Your task to perform on an android device: open app "Flipkart Online Shopping App" (install if not already installed) Image 0: 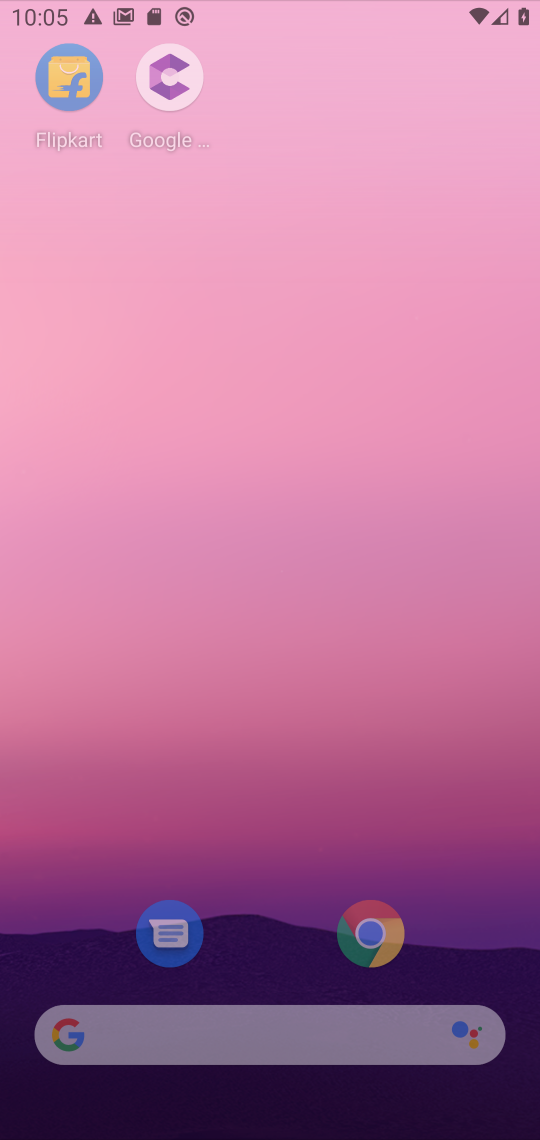
Step 0: click (478, 385)
Your task to perform on an android device: open app "Flipkart Online Shopping App" (install if not already installed) Image 1: 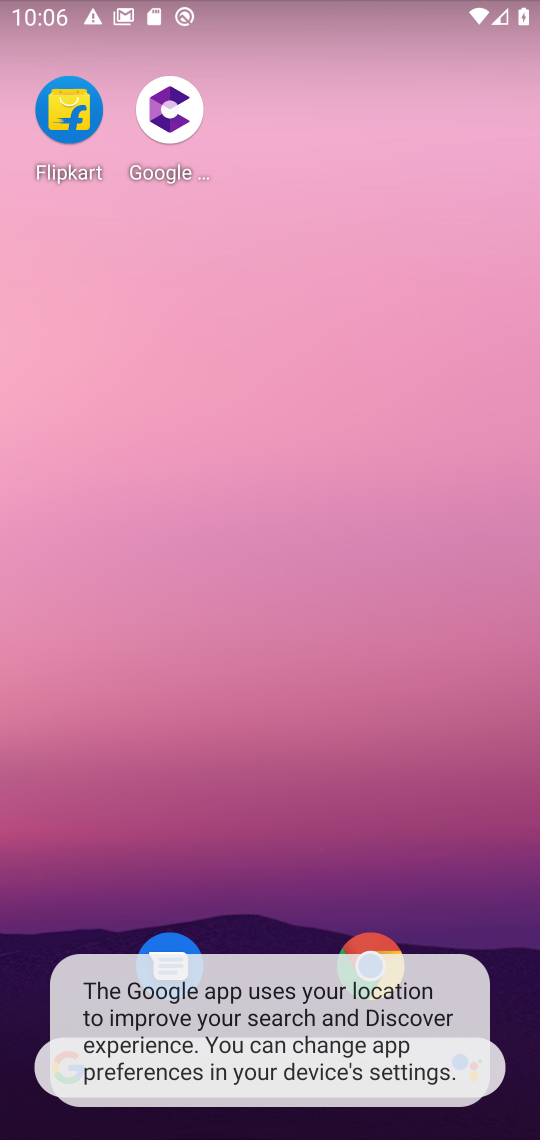
Step 1: drag from (262, 238) to (270, 137)
Your task to perform on an android device: open app "Flipkart Online Shopping App" (install if not already installed) Image 2: 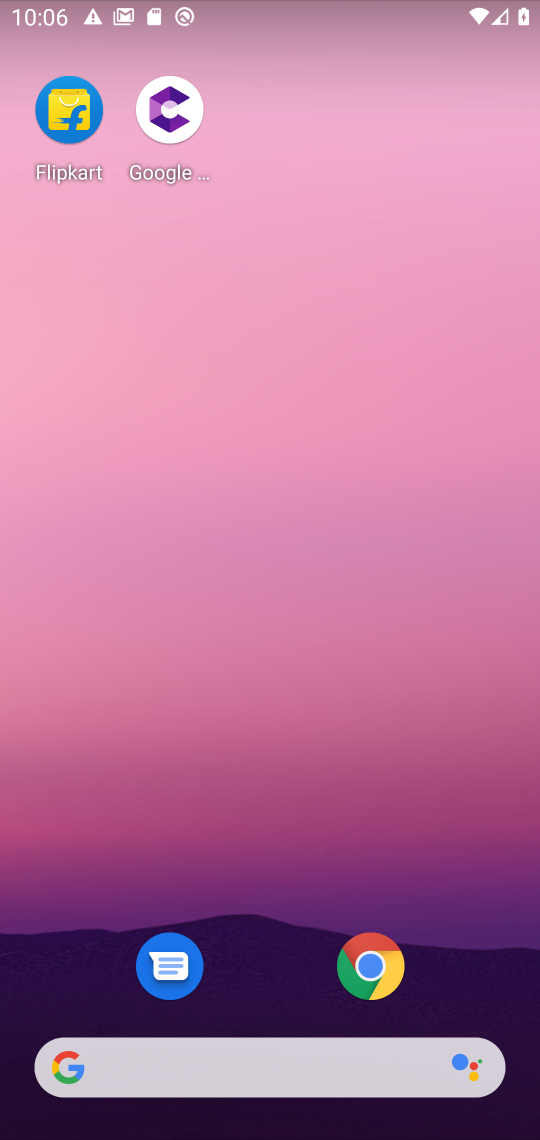
Step 2: click (75, 142)
Your task to perform on an android device: open app "Flipkart Online Shopping App" (install if not already installed) Image 3: 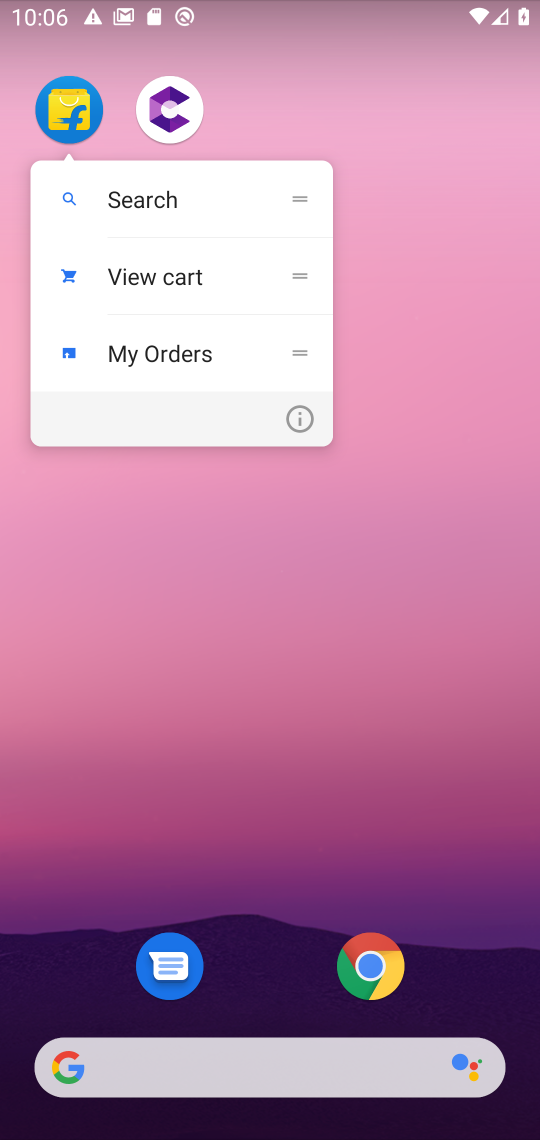
Step 3: click (59, 140)
Your task to perform on an android device: open app "Flipkart Online Shopping App" (install if not already installed) Image 4: 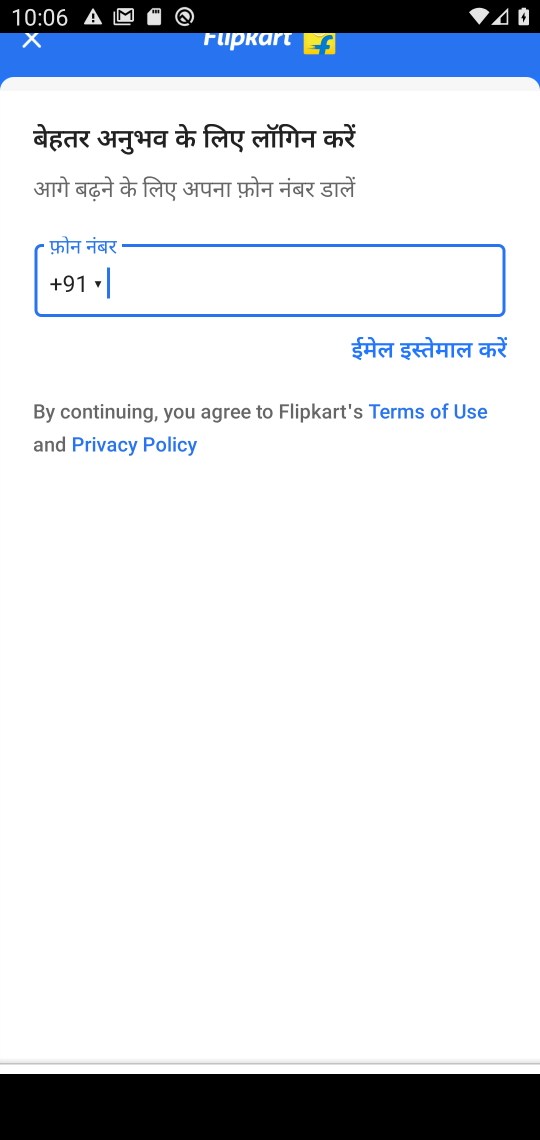
Step 4: click (30, 37)
Your task to perform on an android device: open app "Flipkart Online Shopping App" (install if not already installed) Image 5: 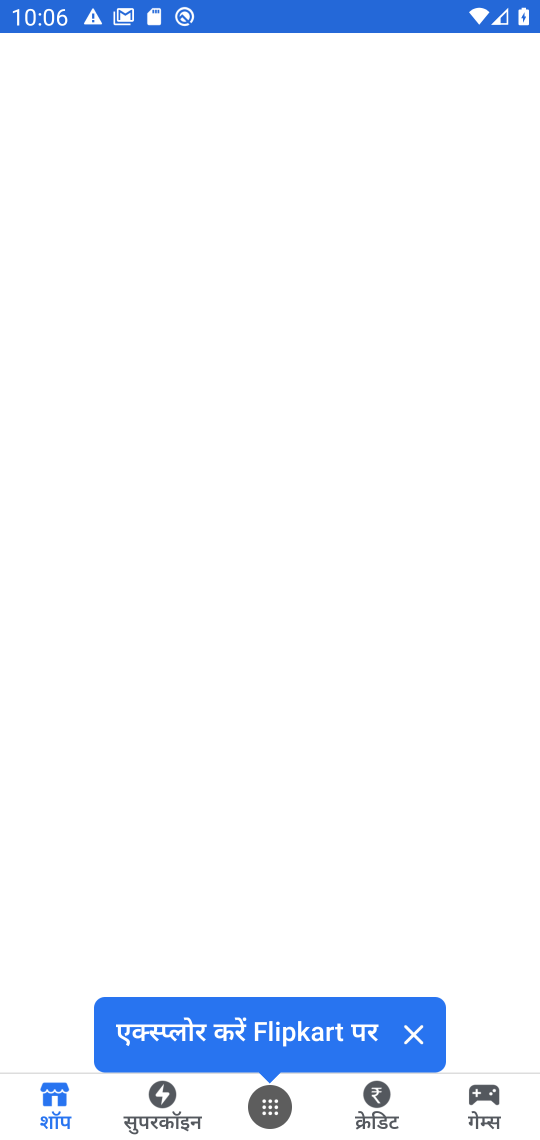
Step 5: click (422, 1037)
Your task to perform on an android device: open app "Flipkart Online Shopping App" (install if not already installed) Image 6: 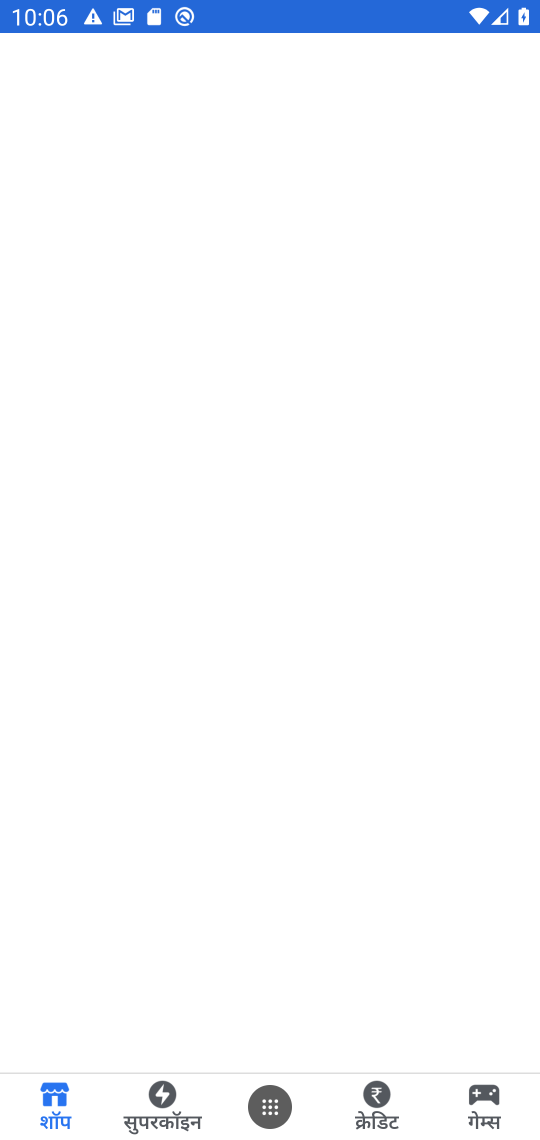
Step 6: task complete